Your task to perform on an android device: install app "Microsoft Outlook" Image 0: 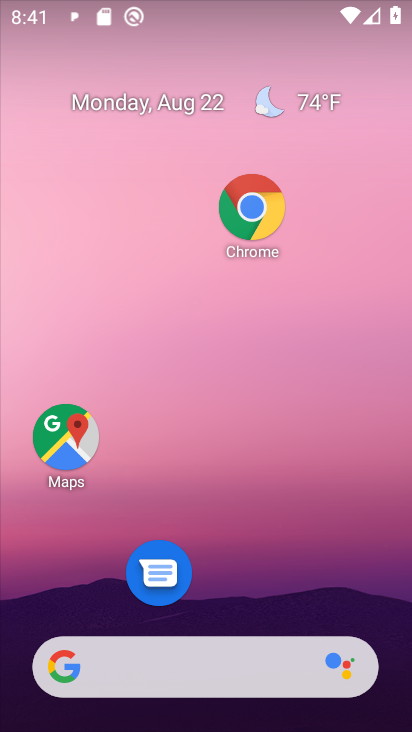
Step 0: drag from (232, 608) to (255, 155)
Your task to perform on an android device: install app "Microsoft Outlook" Image 1: 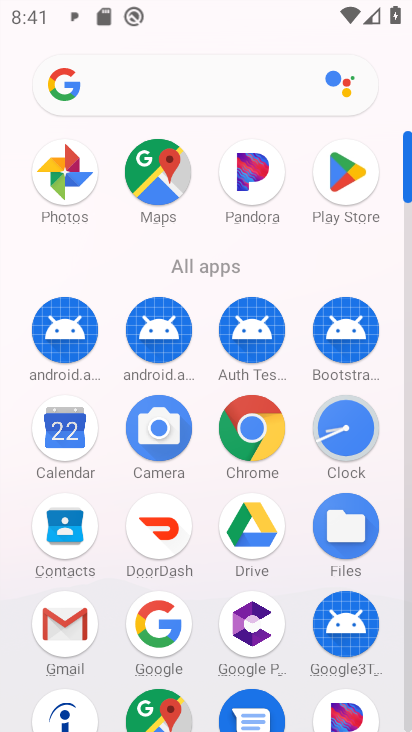
Step 1: click (353, 182)
Your task to perform on an android device: install app "Microsoft Outlook" Image 2: 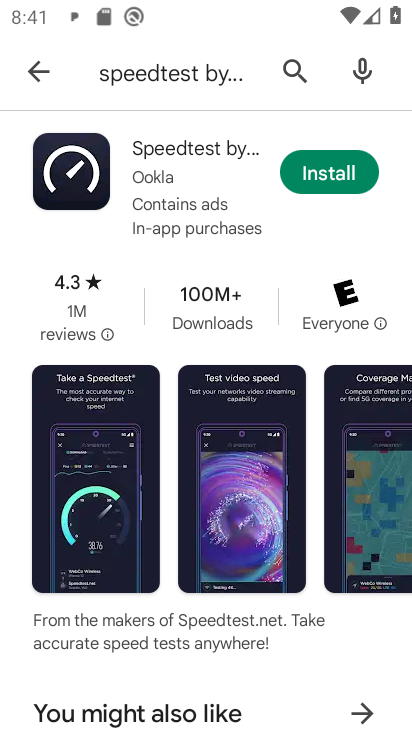
Step 2: click (179, 78)
Your task to perform on an android device: install app "Microsoft Outlook" Image 3: 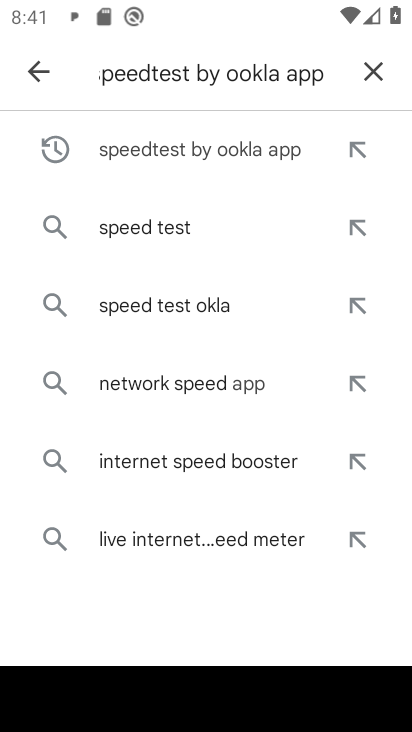
Step 3: click (371, 70)
Your task to perform on an android device: install app "Microsoft Outlook" Image 4: 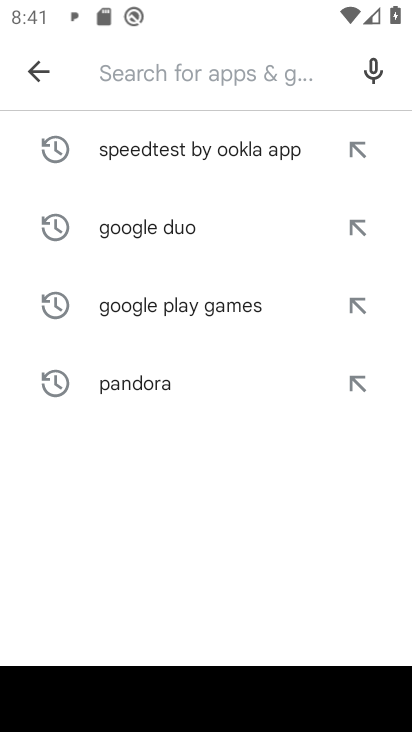
Step 4: type "MIcrosoft Outlook"
Your task to perform on an android device: install app "Microsoft Outlook" Image 5: 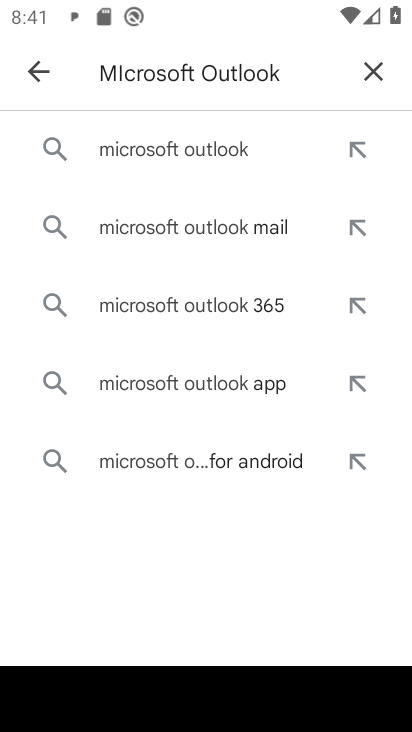
Step 5: click (140, 151)
Your task to perform on an android device: install app "Microsoft Outlook" Image 6: 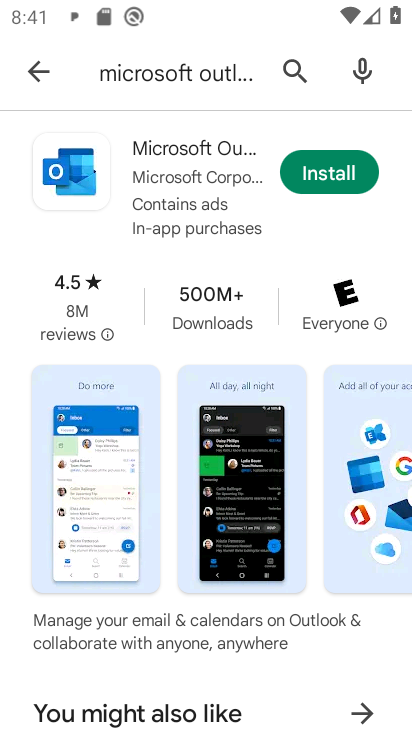
Step 6: click (340, 172)
Your task to perform on an android device: install app "Microsoft Outlook" Image 7: 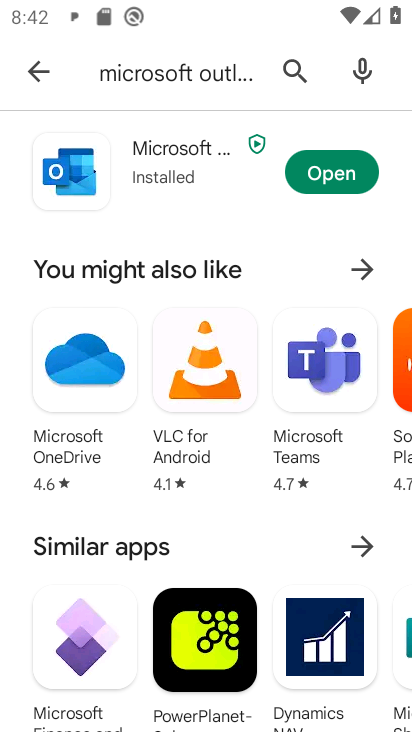
Step 7: task complete